Your task to perform on an android device: empty trash in the gmail app Image 0: 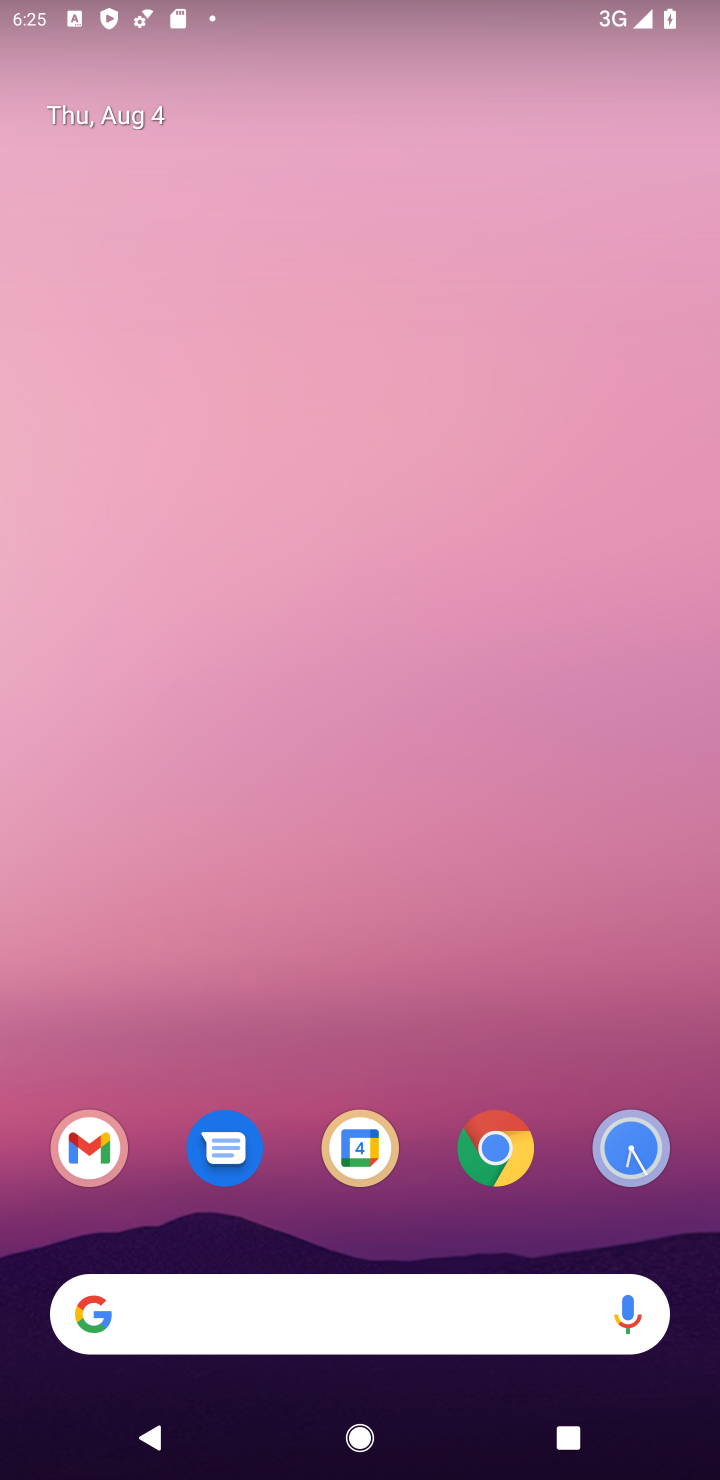
Step 0: click (83, 1152)
Your task to perform on an android device: empty trash in the gmail app Image 1: 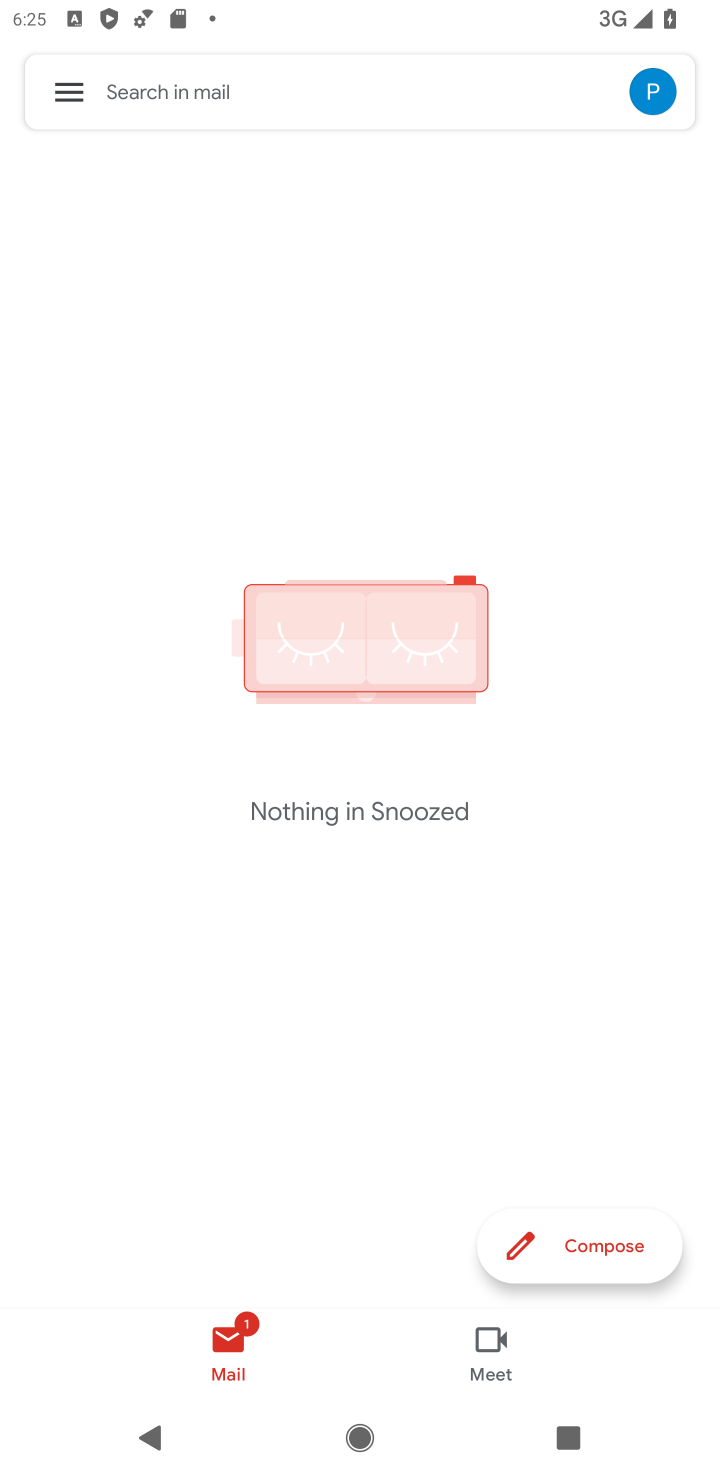
Step 1: click (77, 91)
Your task to perform on an android device: empty trash in the gmail app Image 2: 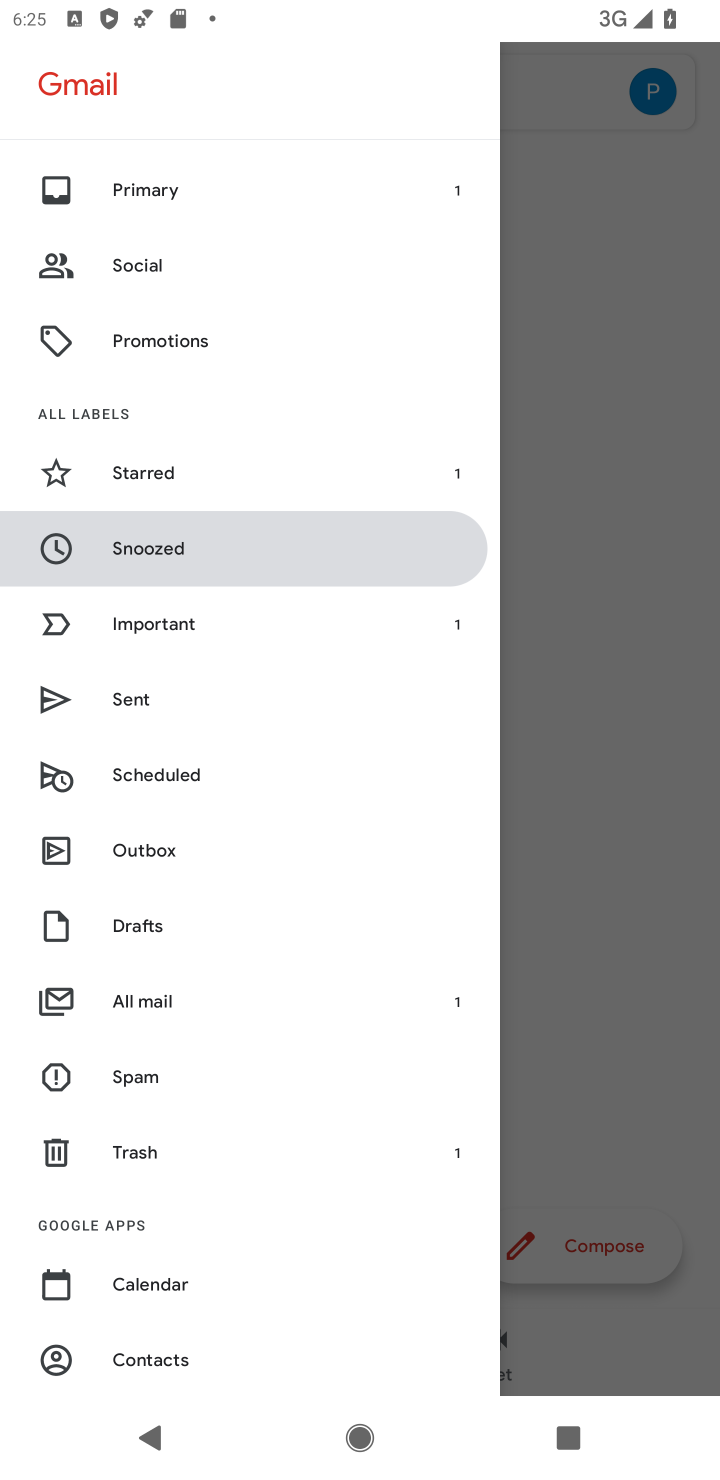
Step 2: click (147, 1156)
Your task to perform on an android device: empty trash in the gmail app Image 3: 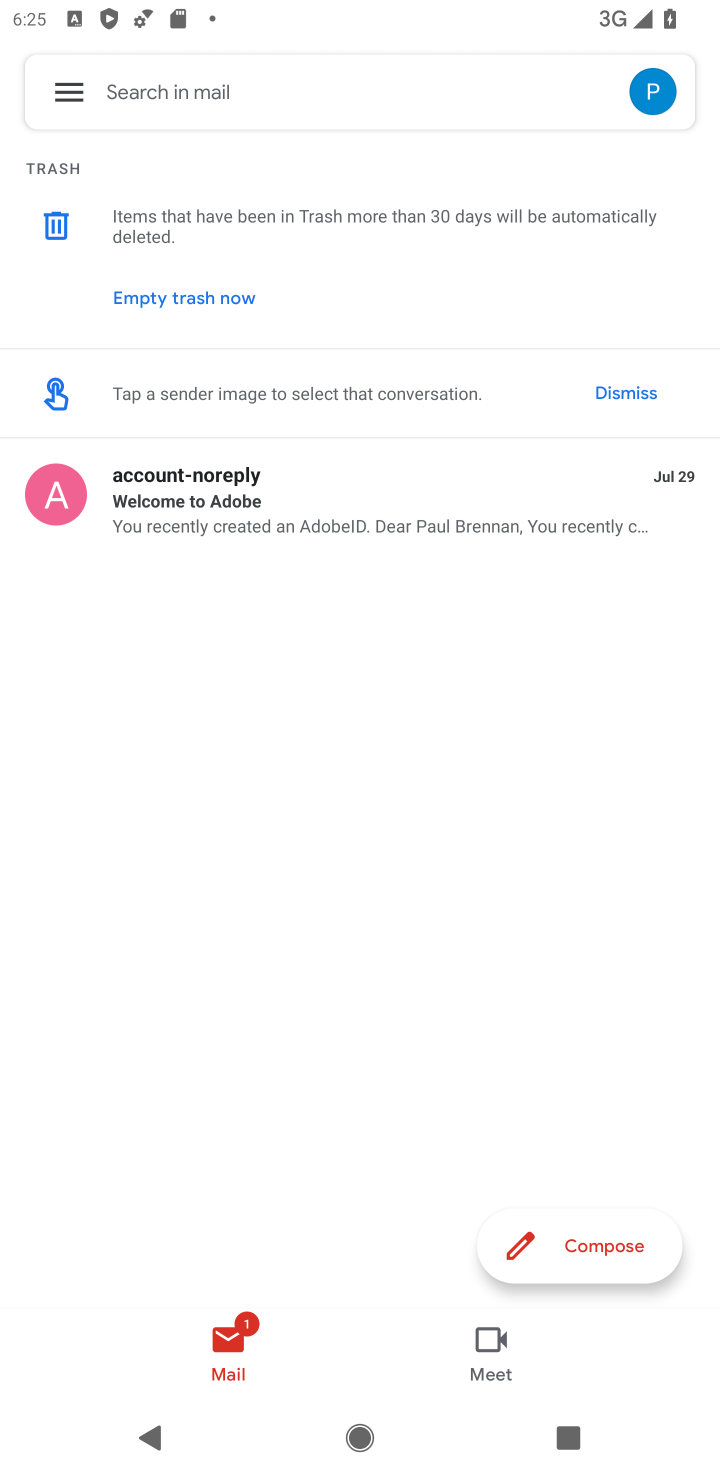
Step 3: click (170, 294)
Your task to perform on an android device: empty trash in the gmail app Image 4: 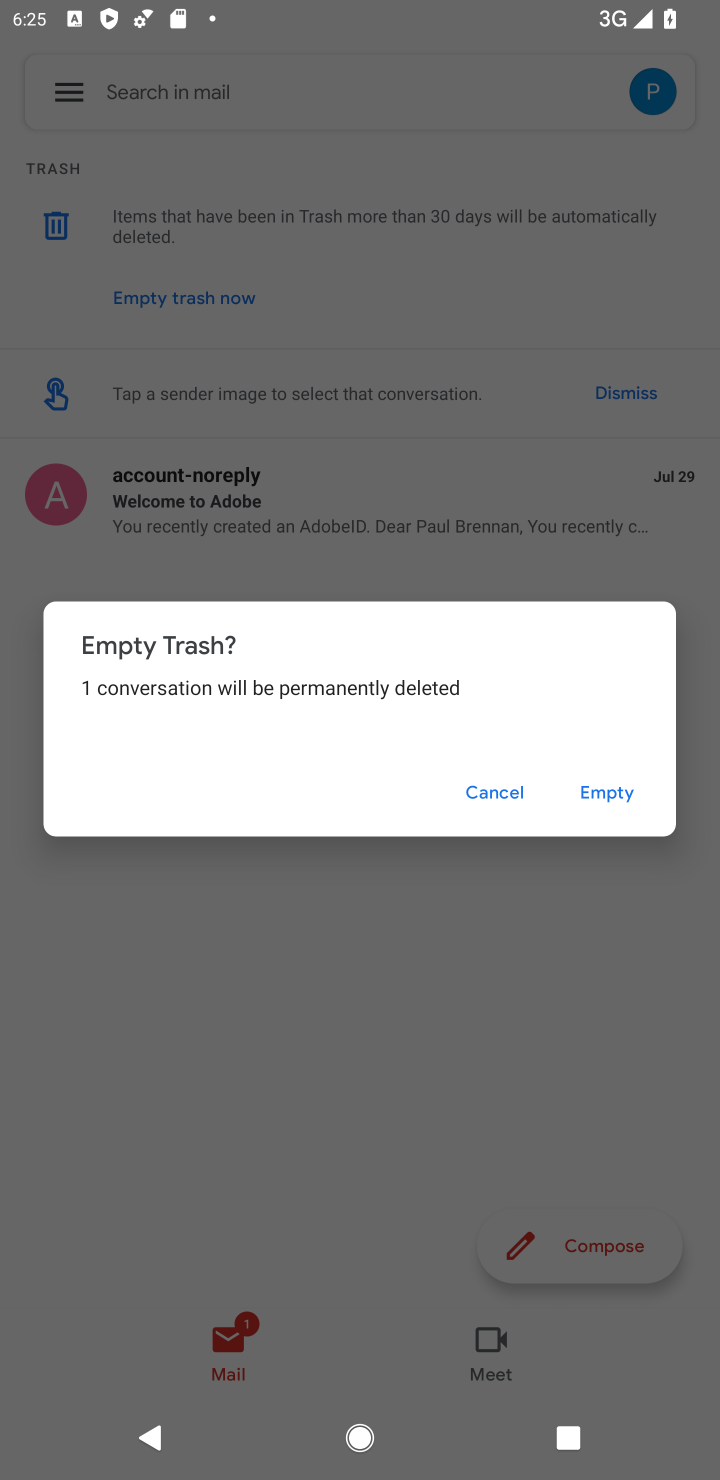
Step 4: click (597, 789)
Your task to perform on an android device: empty trash in the gmail app Image 5: 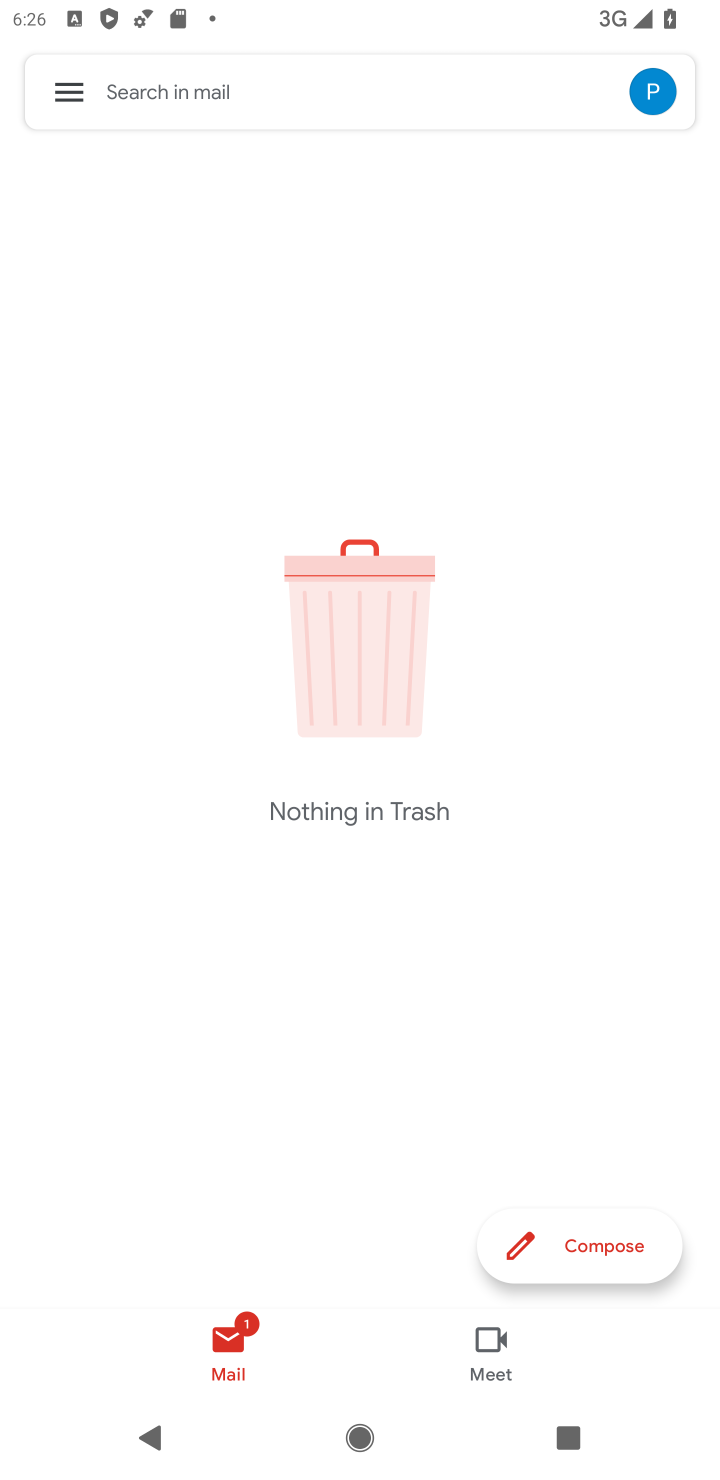
Step 5: task complete